Your task to perform on an android device: Turn on the flashlight Image 0: 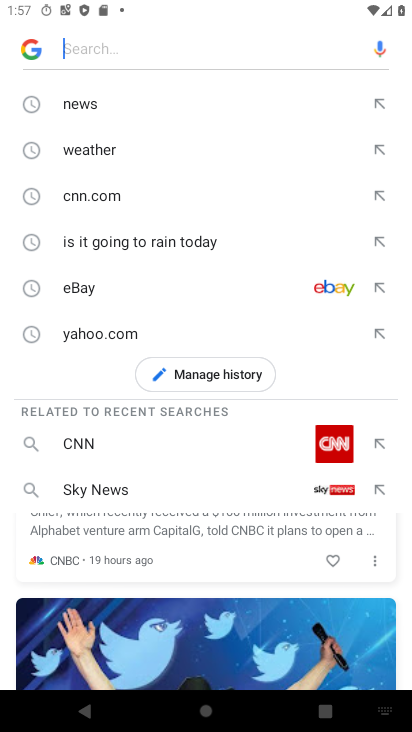
Step 0: task impossible